Your task to perform on an android device: Do I have any events this weekend? Image 0: 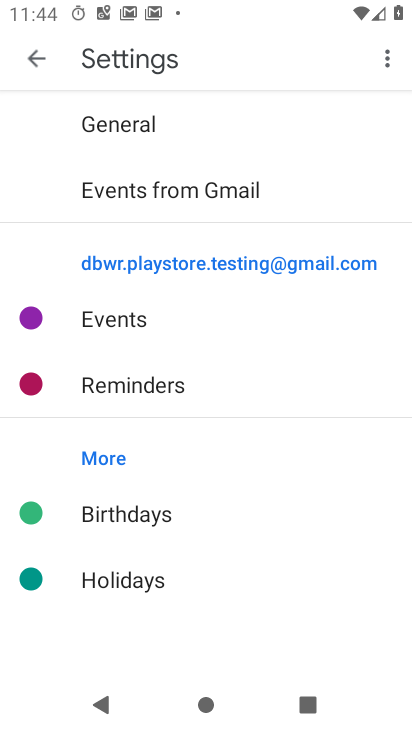
Step 0: press home button
Your task to perform on an android device: Do I have any events this weekend? Image 1: 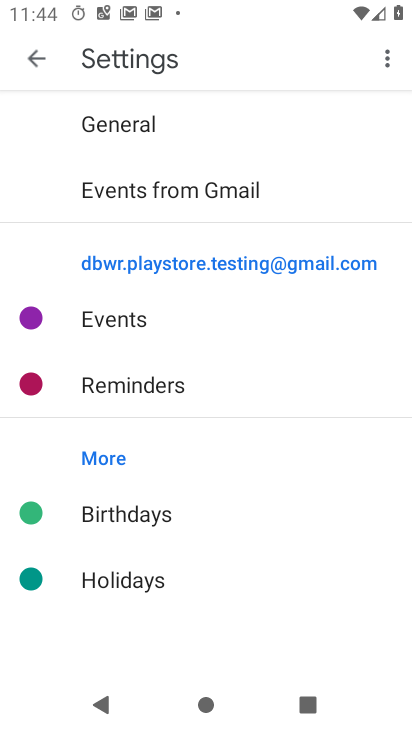
Step 1: press home button
Your task to perform on an android device: Do I have any events this weekend? Image 2: 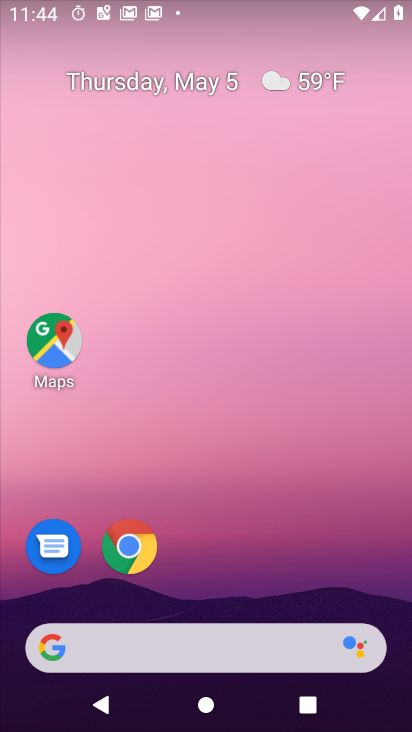
Step 2: click (213, 576)
Your task to perform on an android device: Do I have any events this weekend? Image 3: 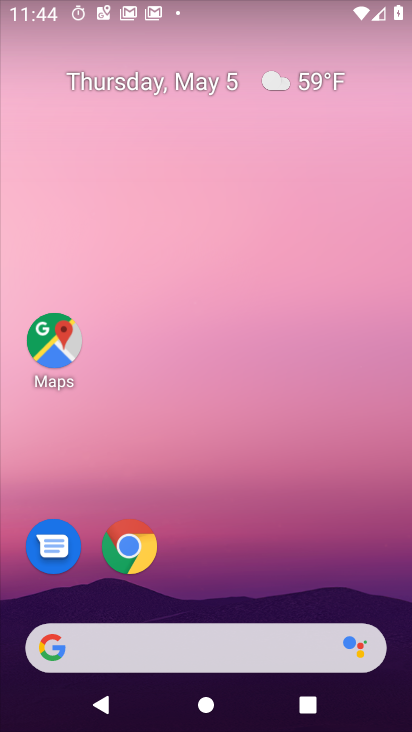
Step 3: click (158, 81)
Your task to perform on an android device: Do I have any events this weekend? Image 4: 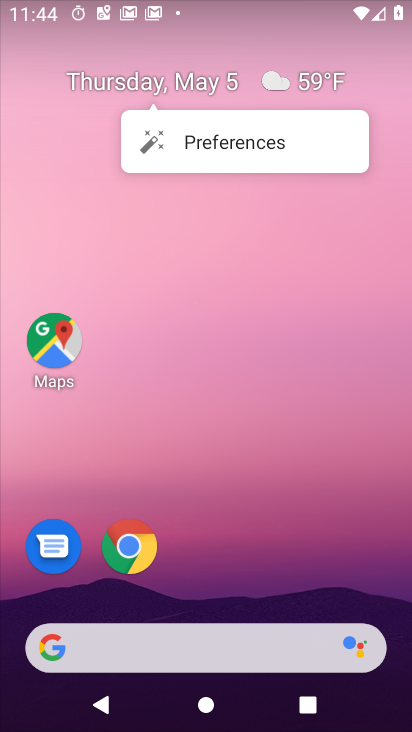
Step 4: click (180, 77)
Your task to perform on an android device: Do I have any events this weekend? Image 5: 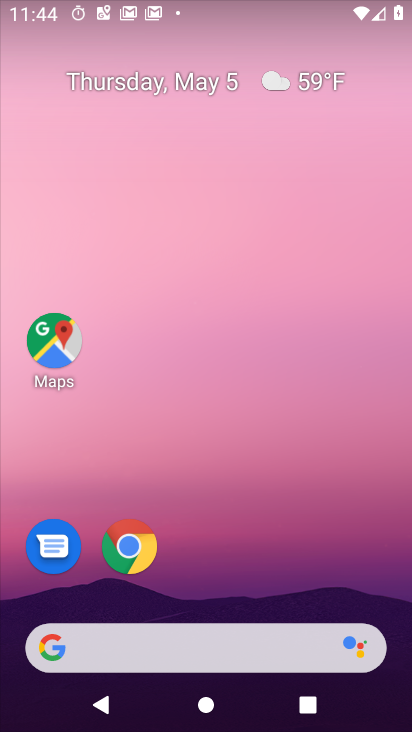
Step 5: click (180, 77)
Your task to perform on an android device: Do I have any events this weekend? Image 6: 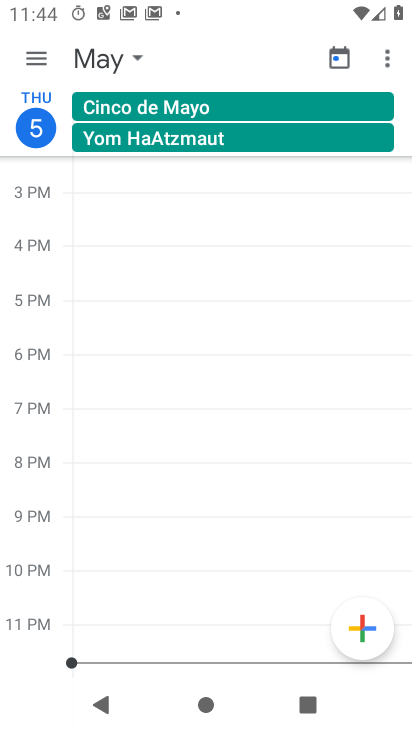
Step 6: click (41, 56)
Your task to perform on an android device: Do I have any events this weekend? Image 7: 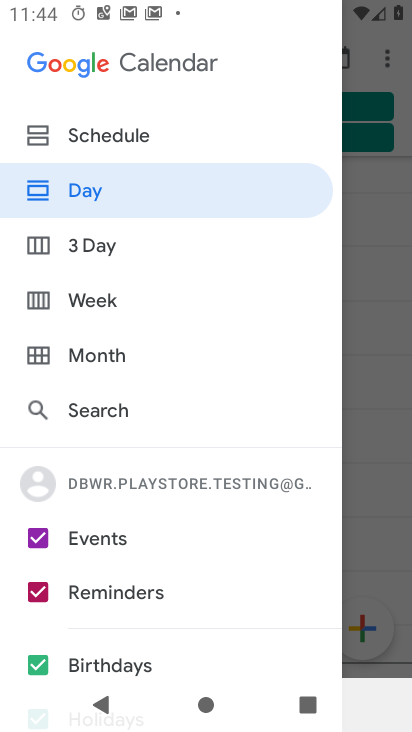
Step 7: drag from (125, 575) to (174, 282)
Your task to perform on an android device: Do I have any events this weekend? Image 8: 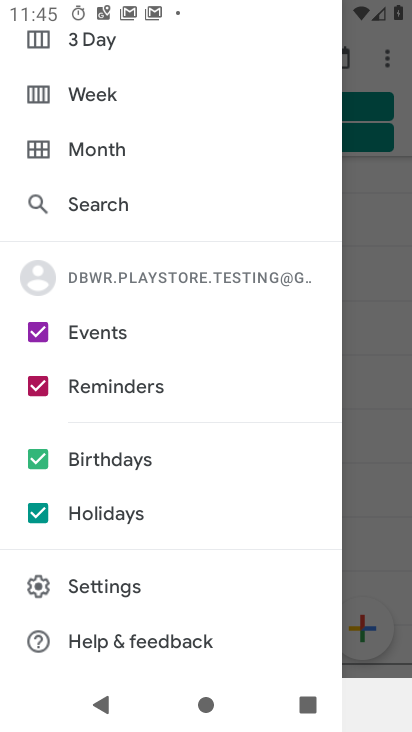
Step 8: click (44, 507)
Your task to perform on an android device: Do I have any events this weekend? Image 9: 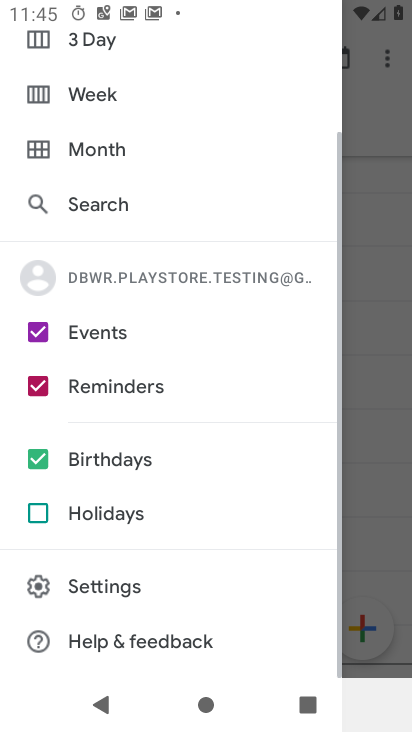
Step 9: click (44, 454)
Your task to perform on an android device: Do I have any events this weekend? Image 10: 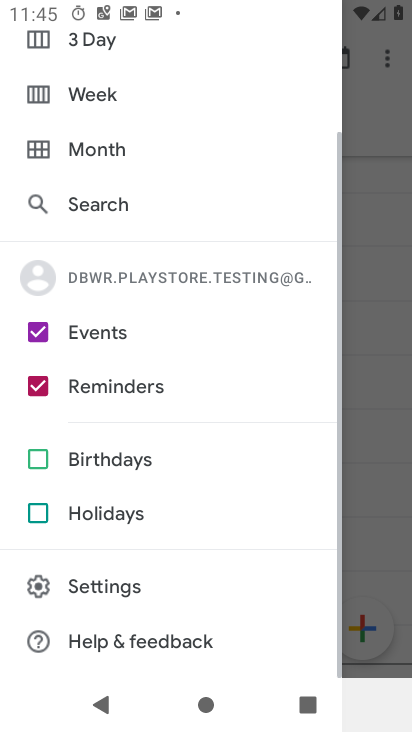
Step 10: click (42, 380)
Your task to perform on an android device: Do I have any events this weekend? Image 11: 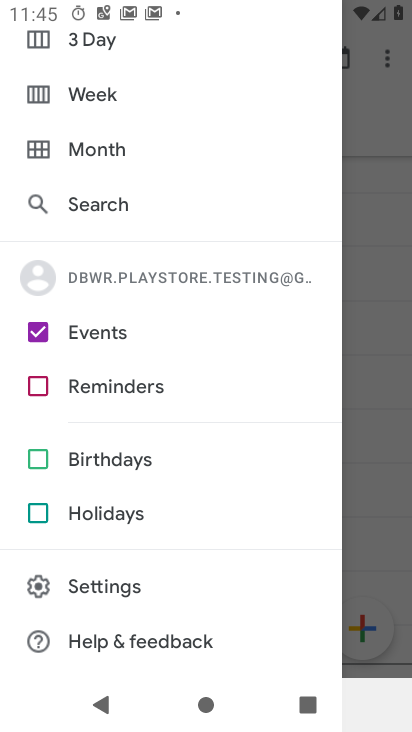
Step 11: drag from (247, 152) to (243, 437)
Your task to perform on an android device: Do I have any events this weekend? Image 12: 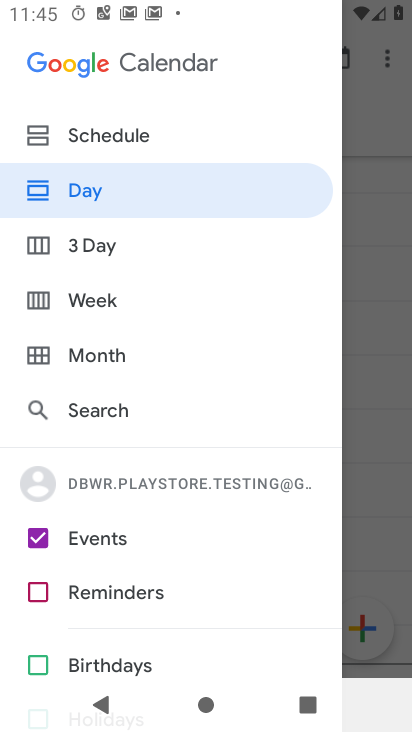
Step 12: click (107, 252)
Your task to perform on an android device: Do I have any events this weekend? Image 13: 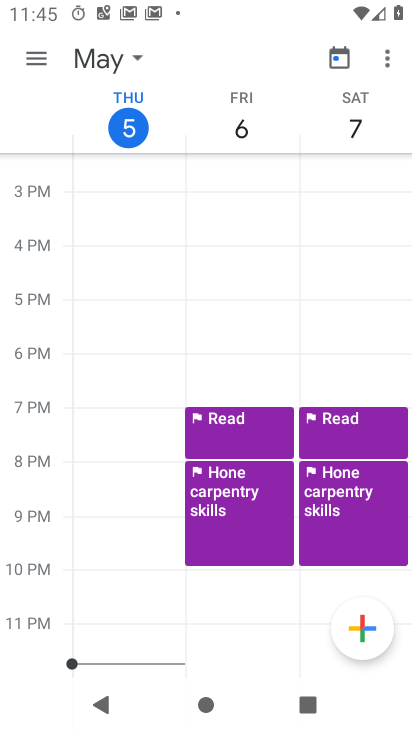
Step 13: click (114, 62)
Your task to perform on an android device: Do I have any events this weekend? Image 14: 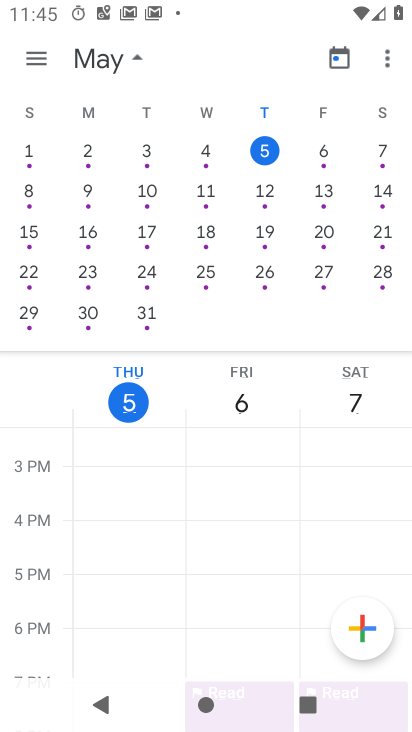
Step 14: click (325, 145)
Your task to perform on an android device: Do I have any events this weekend? Image 15: 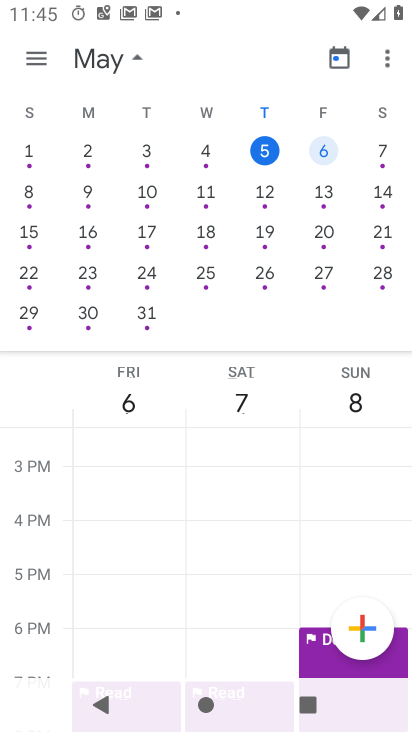
Step 15: task complete